Your task to perform on an android device: turn on priority inbox in the gmail app Image 0: 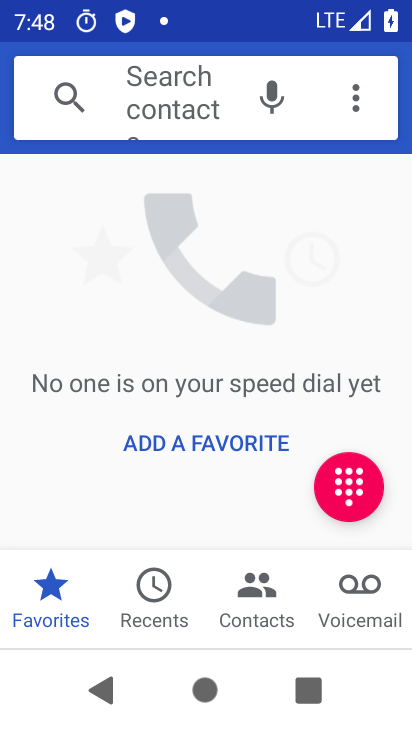
Step 0: press home button
Your task to perform on an android device: turn on priority inbox in the gmail app Image 1: 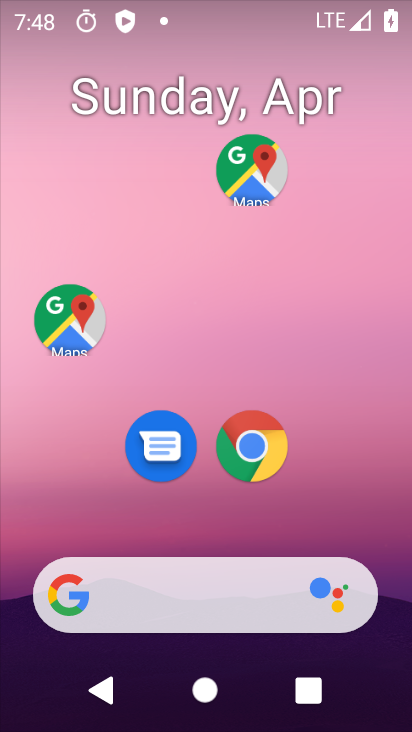
Step 1: drag from (201, 555) to (316, 551)
Your task to perform on an android device: turn on priority inbox in the gmail app Image 2: 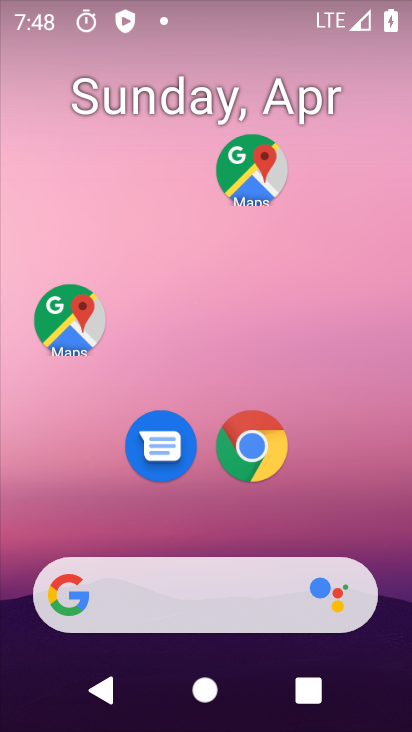
Step 2: drag from (240, 543) to (171, 30)
Your task to perform on an android device: turn on priority inbox in the gmail app Image 3: 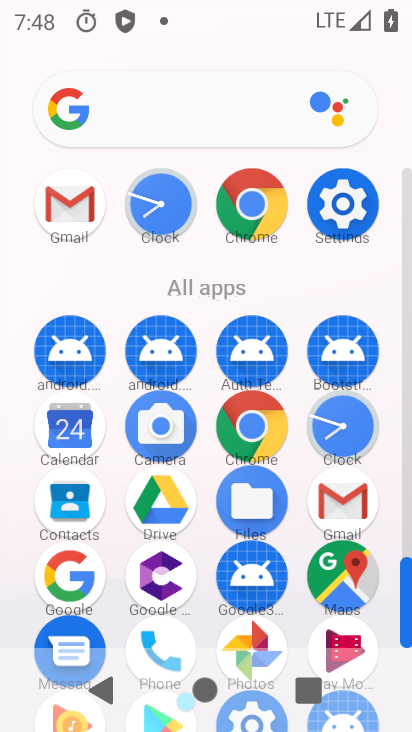
Step 3: click (351, 492)
Your task to perform on an android device: turn on priority inbox in the gmail app Image 4: 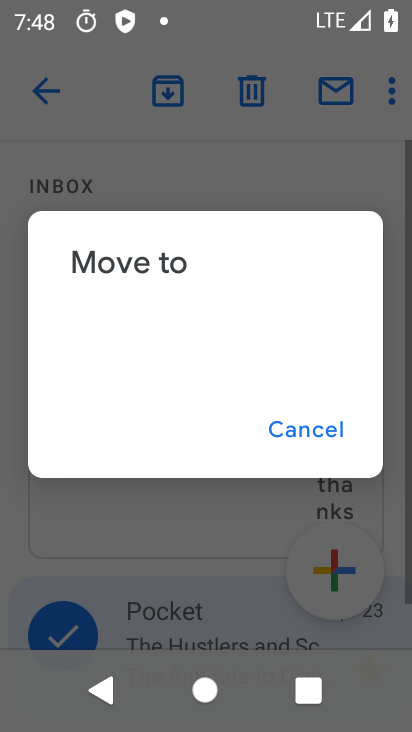
Step 4: click (331, 433)
Your task to perform on an android device: turn on priority inbox in the gmail app Image 5: 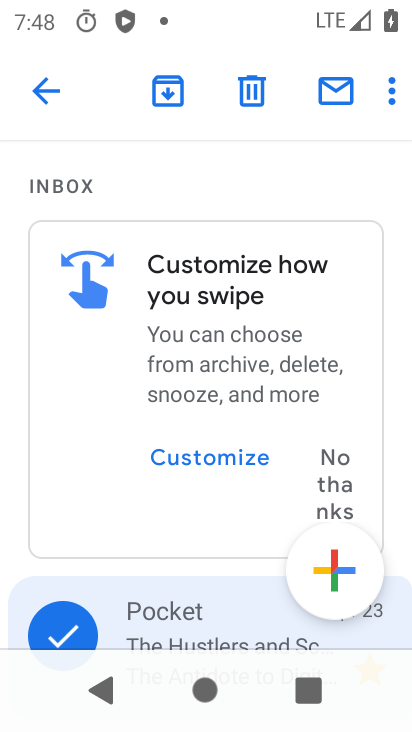
Step 5: click (44, 92)
Your task to perform on an android device: turn on priority inbox in the gmail app Image 6: 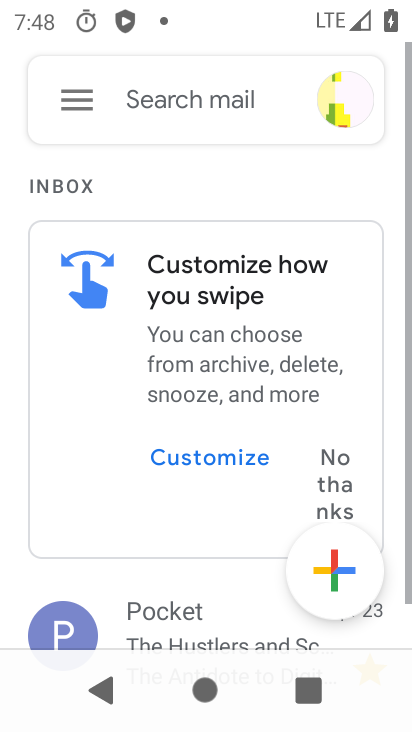
Step 6: click (83, 96)
Your task to perform on an android device: turn on priority inbox in the gmail app Image 7: 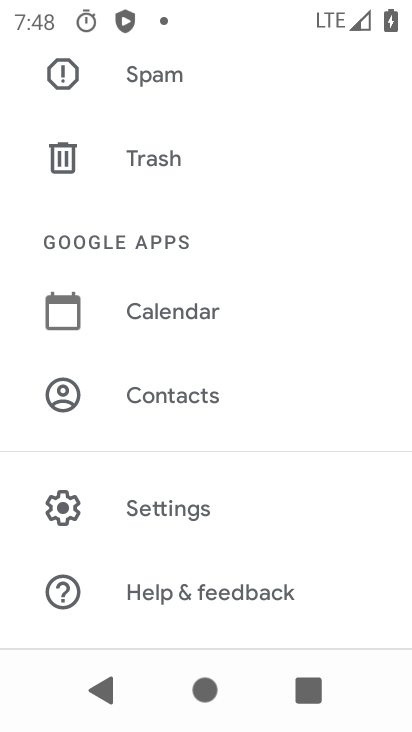
Step 7: click (112, 501)
Your task to perform on an android device: turn on priority inbox in the gmail app Image 8: 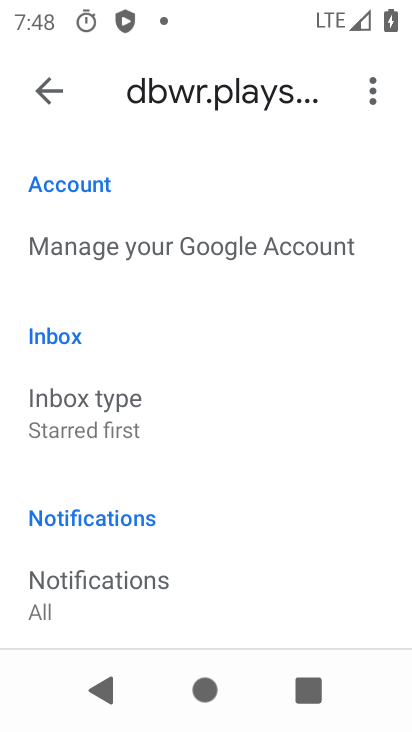
Step 8: click (103, 425)
Your task to perform on an android device: turn on priority inbox in the gmail app Image 9: 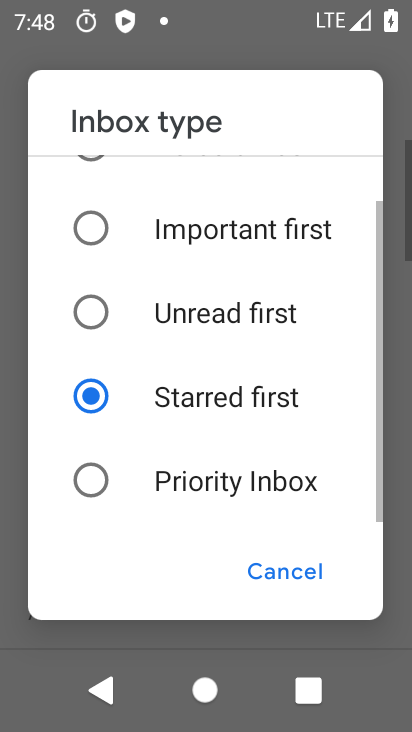
Step 9: click (139, 478)
Your task to perform on an android device: turn on priority inbox in the gmail app Image 10: 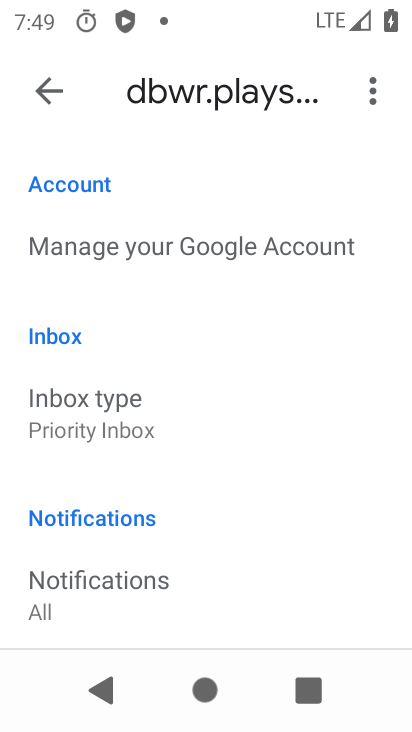
Step 10: task complete